Your task to perform on an android device: turn pop-ups on in chrome Image 0: 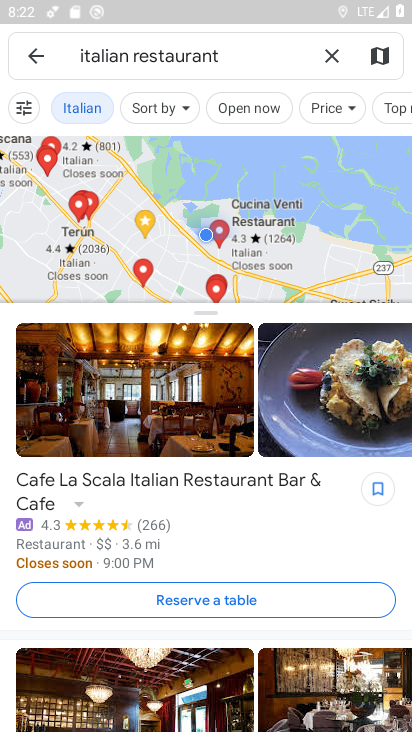
Step 0: press home button
Your task to perform on an android device: turn pop-ups on in chrome Image 1: 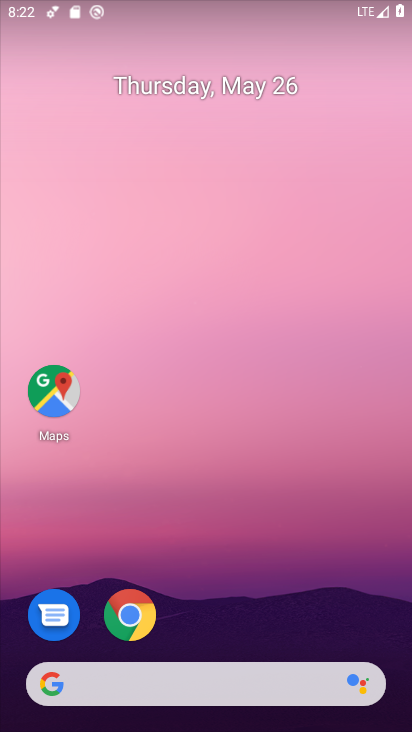
Step 1: drag from (197, 613) to (172, 242)
Your task to perform on an android device: turn pop-ups on in chrome Image 2: 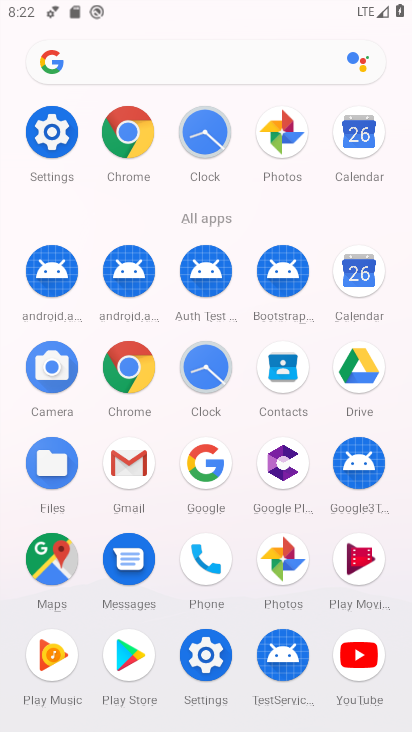
Step 2: click (130, 124)
Your task to perform on an android device: turn pop-ups on in chrome Image 3: 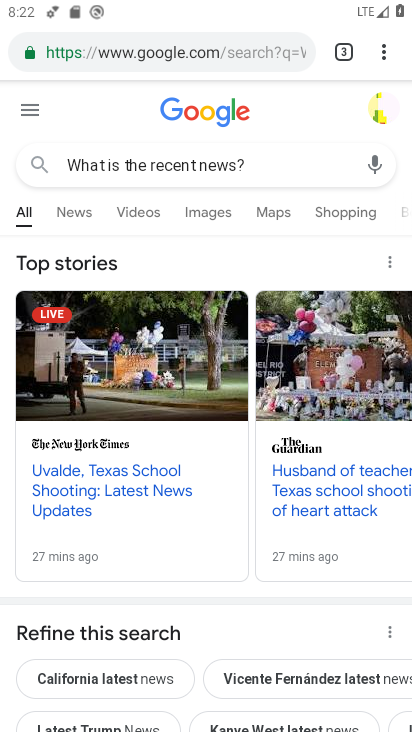
Step 3: click (386, 53)
Your task to perform on an android device: turn pop-ups on in chrome Image 4: 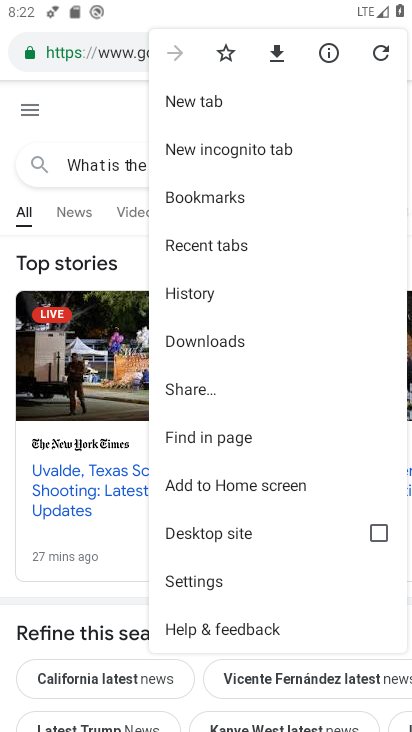
Step 4: click (229, 581)
Your task to perform on an android device: turn pop-ups on in chrome Image 5: 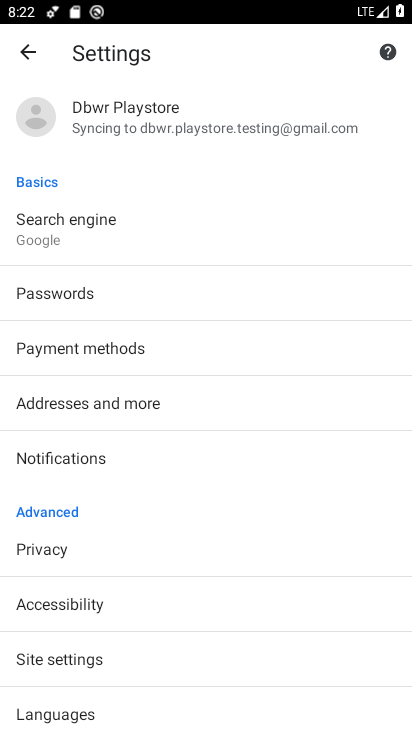
Step 5: click (178, 574)
Your task to perform on an android device: turn pop-ups on in chrome Image 6: 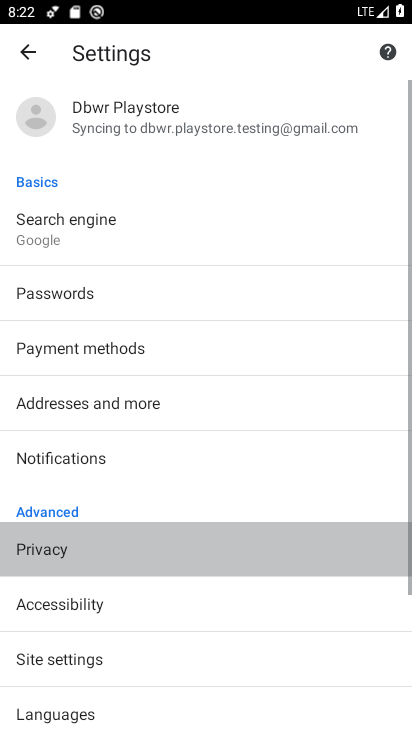
Step 6: drag from (178, 550) to (197, 286)
Your task to perform on an android device: turn pop-ups on in chrome Image 7: 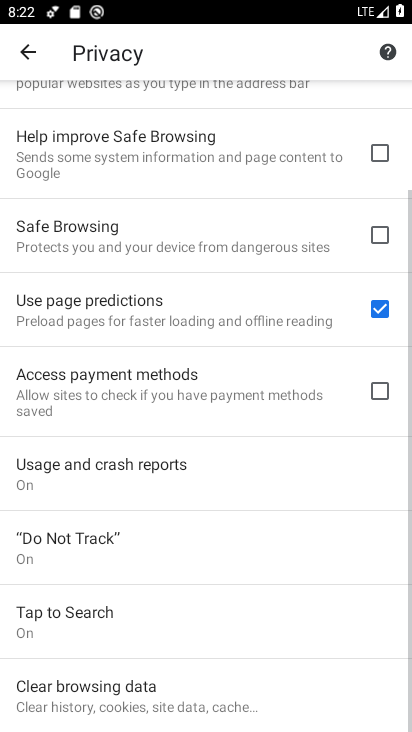
Step 7: click (28, 58)
Your task to perform on an android device: turn pop-ups on in chrome Image 8: 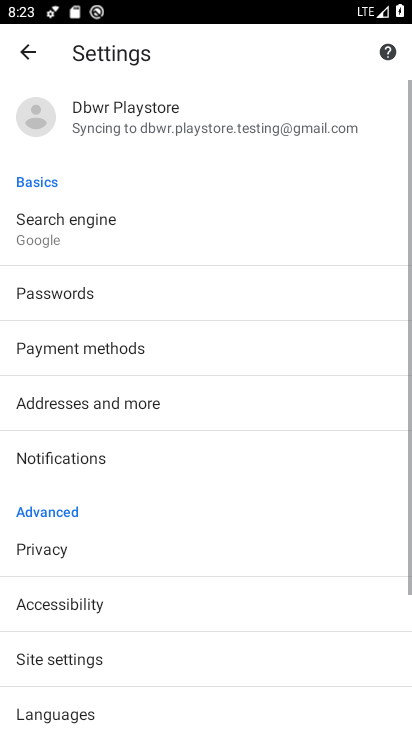
Step 8: drag from (113, 673) to (176, 322)
Your task to perform on an android device: turn pop-ups on in chrome Image 9: 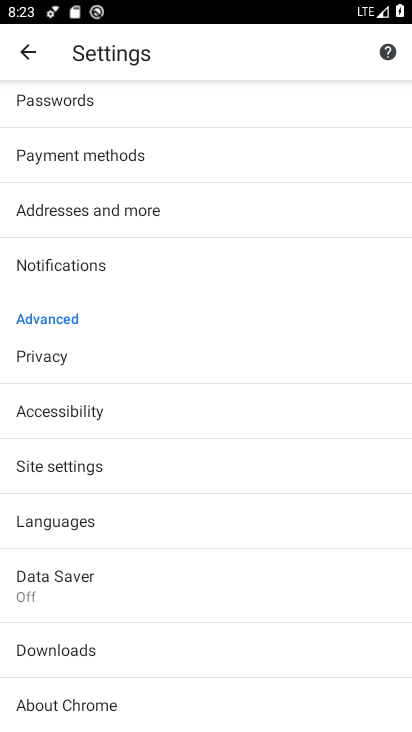
Step 9: drag from (149, 652) to (203, 321)
Your task to perform on an android device: turn pop-ups on in chrome Image 10: 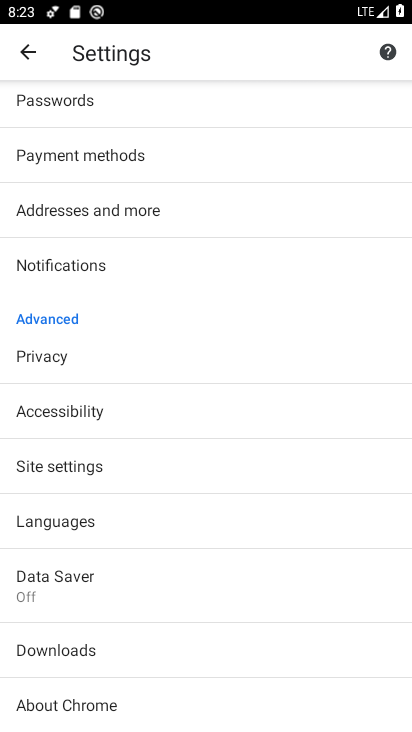
Step 10: click (108, 456)
Your task to perform on an android device: turn pop-ups on in chrome Image 11: 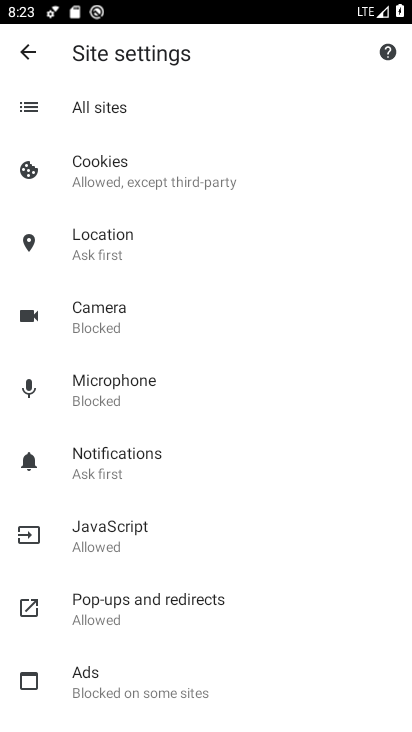
Step 11: drag from (218, 638) to (224, 412)
Your task to perform on an android device: turn pop-ups on in chrome Image 12: 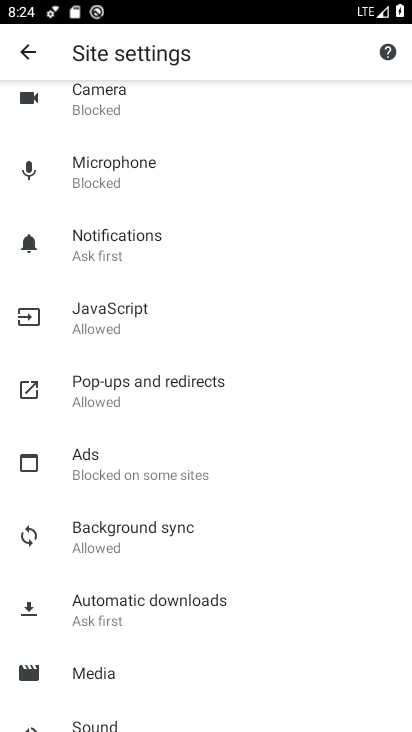
Step 12: click (123, 403)
Your task to perform on an android device: turn pop-ups on in chrome Image 13: 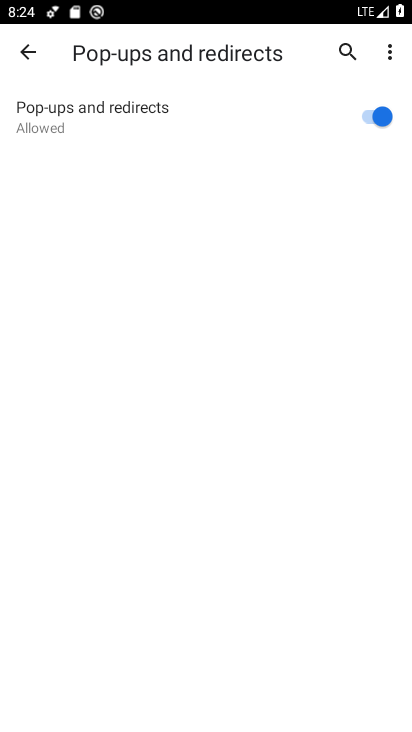
Step 13: task complete